Your task to perform on an android device: When is my next meeting? Image 0: 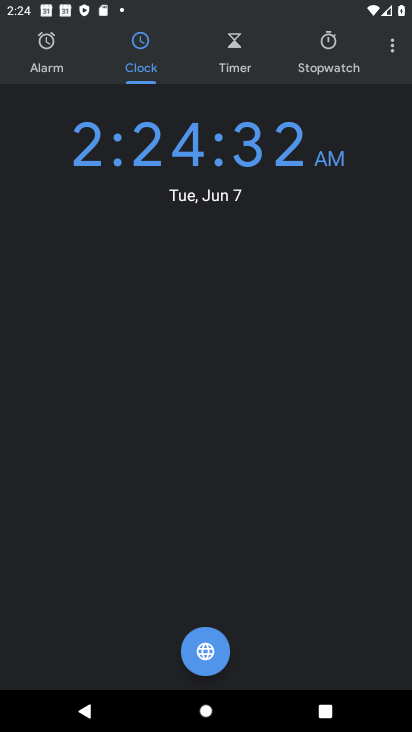
Step 0: press home button
Your task to perform on an android device: When is my next meeting? Image 1: 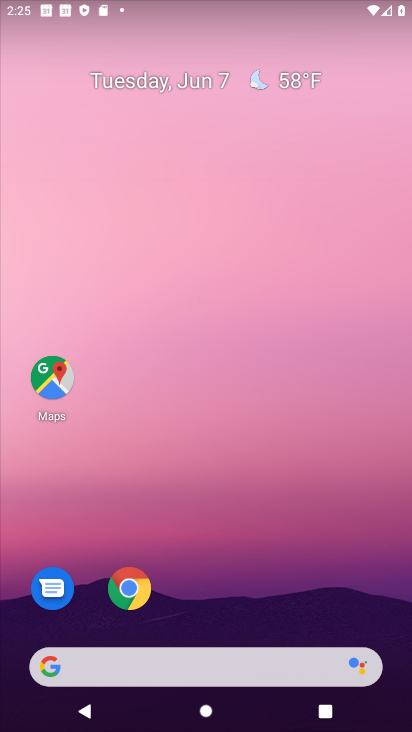
Step 1: drag from (322, 598) to (317, 3)
Your task to perform on an android device: When is my next meeting? Image 2: 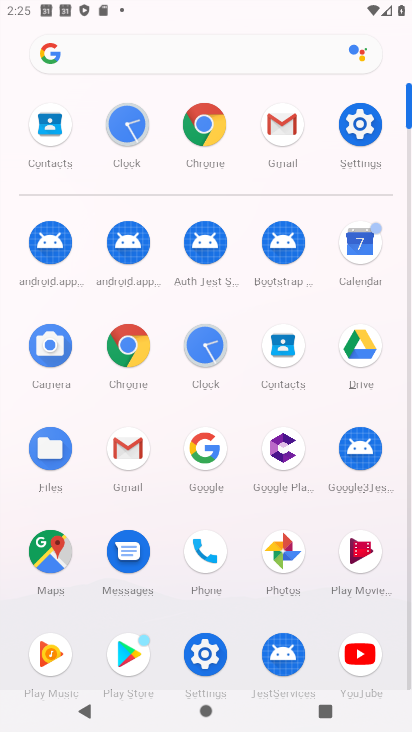
Step 2: click (361, 273)
Your task to perform on an android device: When is my next meeting? Image 3: 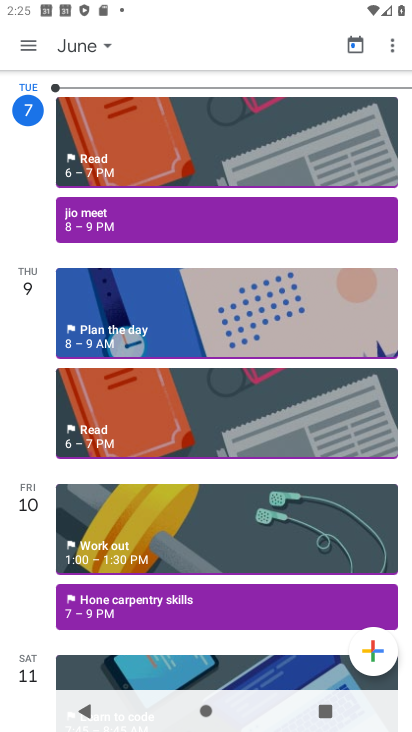
Step 3: task complete